Your task to perform on an android device: Do I have any events tomorrow? Image 0: 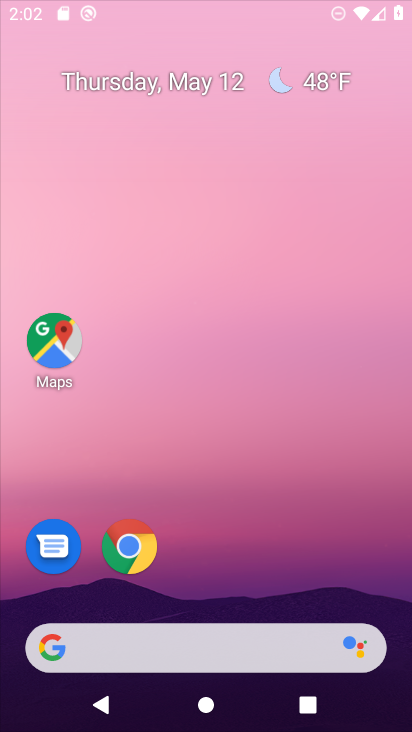
Step 0: drag from (314, 669) to (175, 170)
Your task to perform on an android device: Do I have any events tomorrow? Image 1: 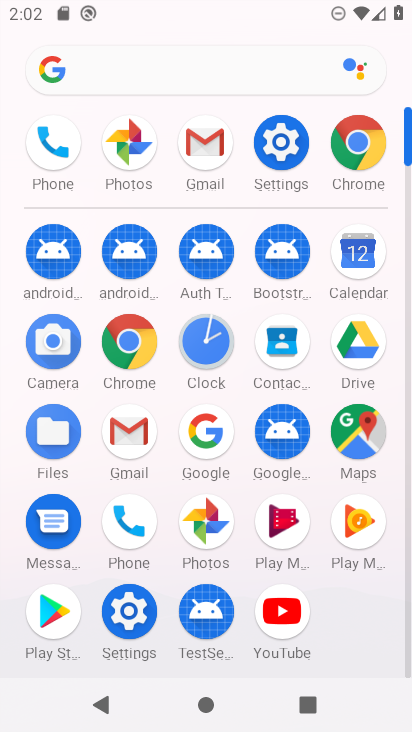
Step 1: click (349, 261)
Your task to perform on an android device: Do I have any events tomorrow? Image 2: 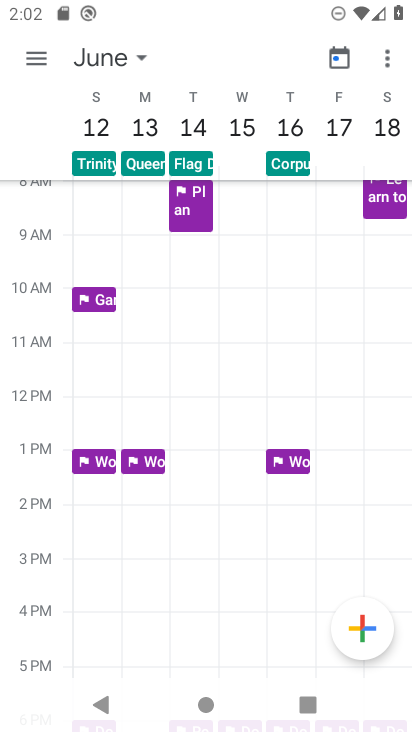
Step 2: click (37, 61)
Your task to perform on an android device: Do I have any events tomorrow? Image 3: 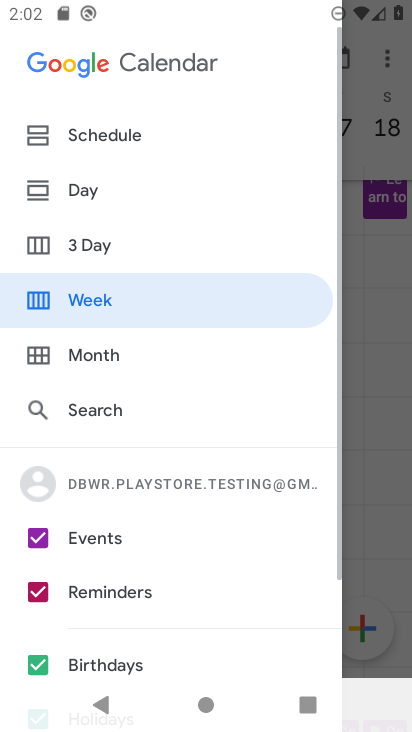
Step 3: click (100, 357)
Your task to perform on an android device: Do I have any events tomorrow? Image 4: 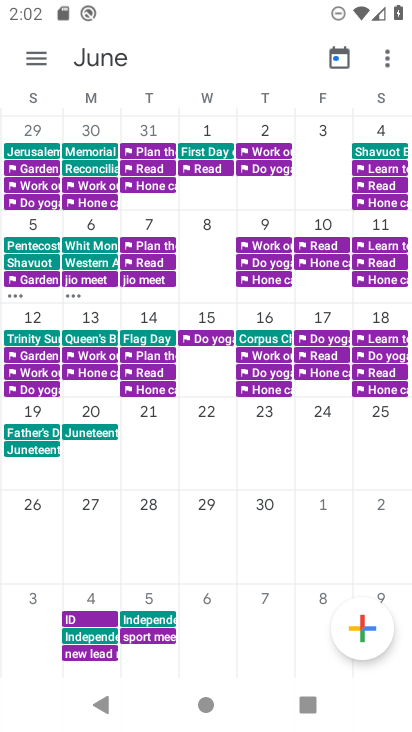
Step 4: drag from (27, 395) to (405, 293)
Your task to perform on an android device: Do I have any events tomorrow? Image 5: 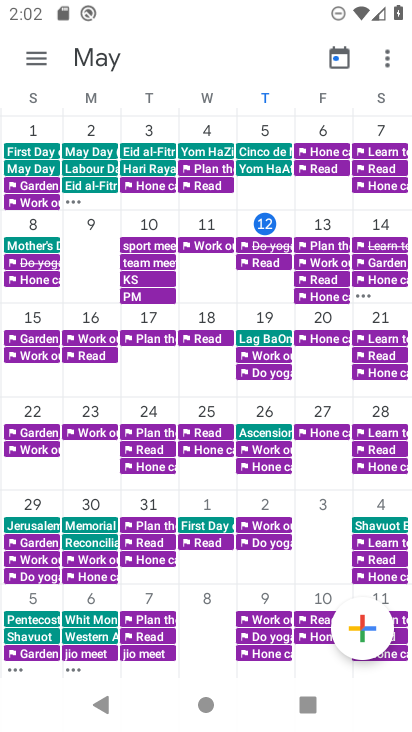
Step 5: click (34, 65)
Your task to perform on an android device: Do I have any events tomorrow? Image 6: 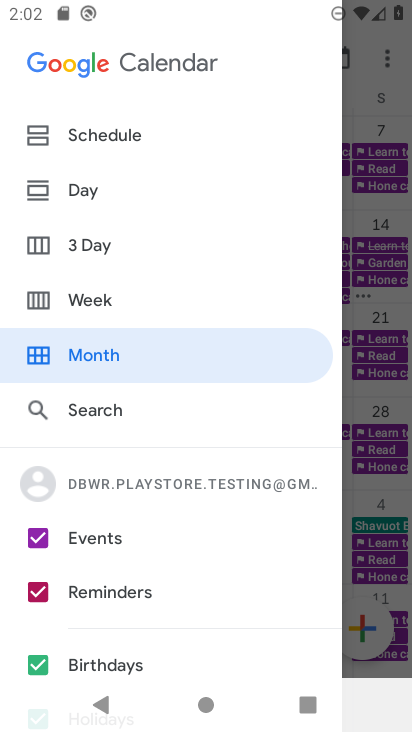
Step 6: click (102, 247)
Your task to perform on an android device: Do I have any events tomorrow? Image 7: 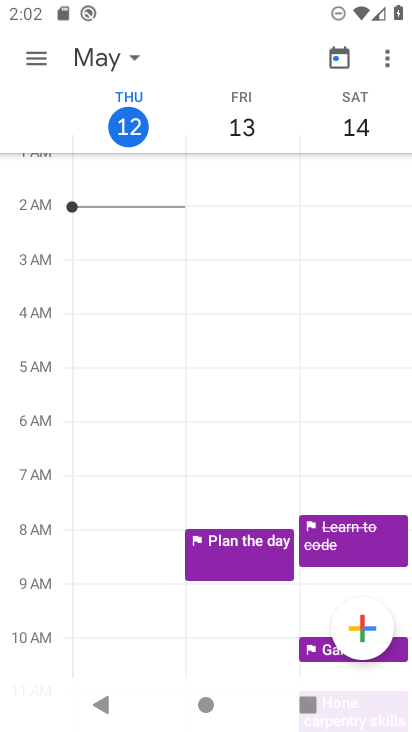
Step 7: task complete